Your task to perform on an android device: clear all cookies in the chrome app Image 0: 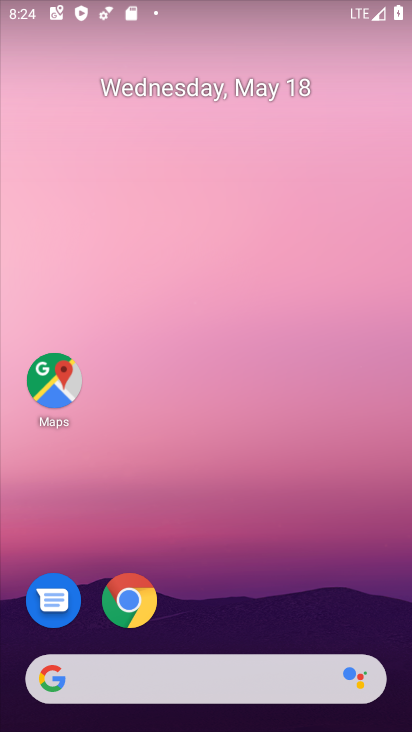
Step 0: click (126, 600)
Your task to perform on an android device: clear all cookies in the chrome app Image 1: 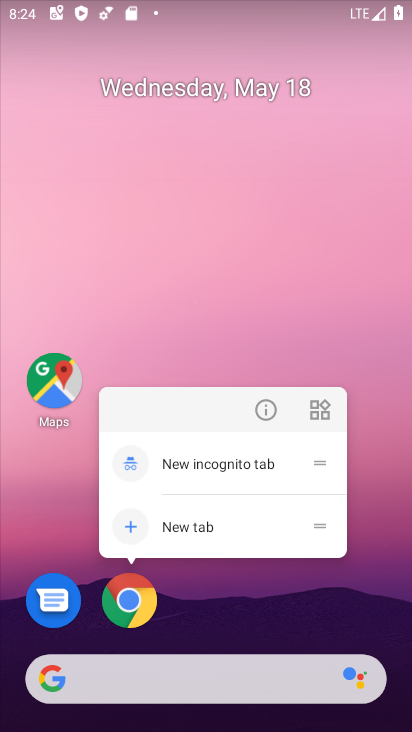
Step 1: click (138, 603)
Your task to perform on an android device: clear all cookies in the chrome app Image 2: 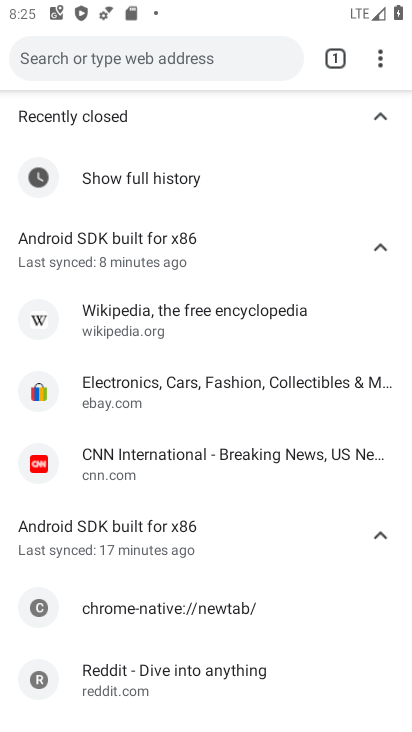
Step 2: drag from (260, 216) to (186, 694)
Your task to perform on an android device: clear all cookies in the chrome app Image 3: 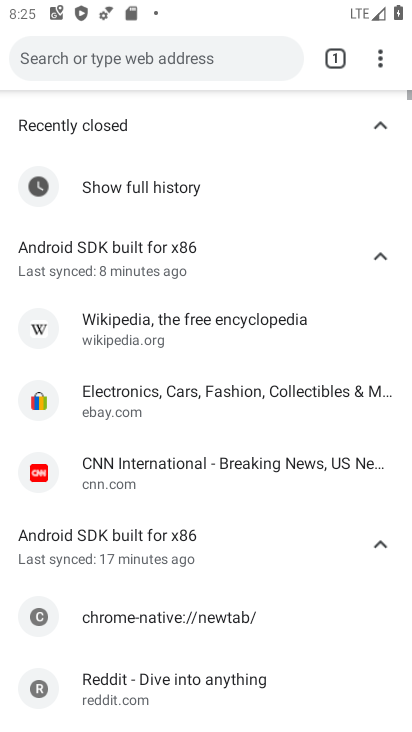
Step 3: click (381, 49)
Your task to perform on an android device: clear all cookies in the chrome app Image 4: 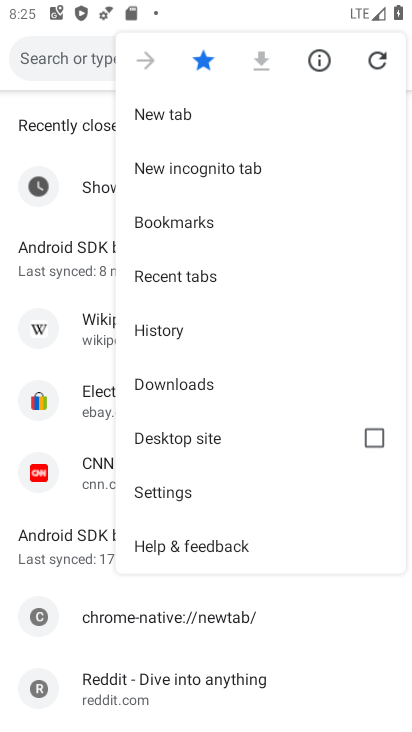
Step 4: click (187, 319)
Your task to perform on an android device: clear all cookies in the chrome app Image 5: 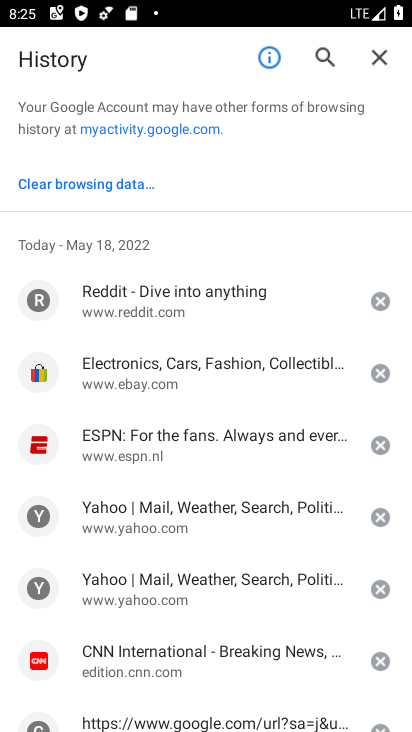
Step 5: click (94, 180)
Your task to perform on an android device: clear all cookies in the chrome app Image 6: 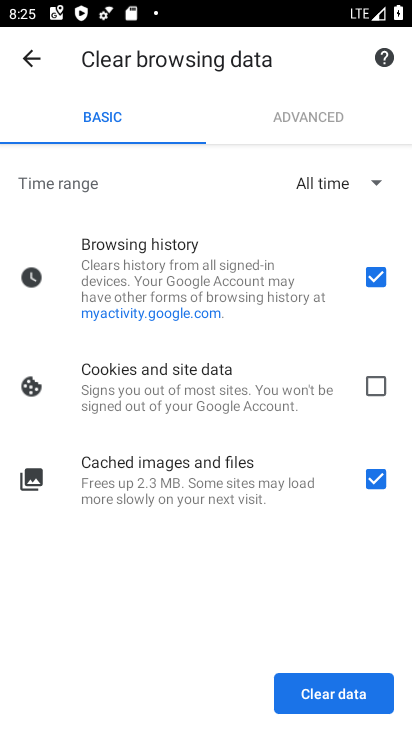
Step 6: click (360, 370)
Your task to perform on an android device: clear all cookies in the chrome app Image 7: 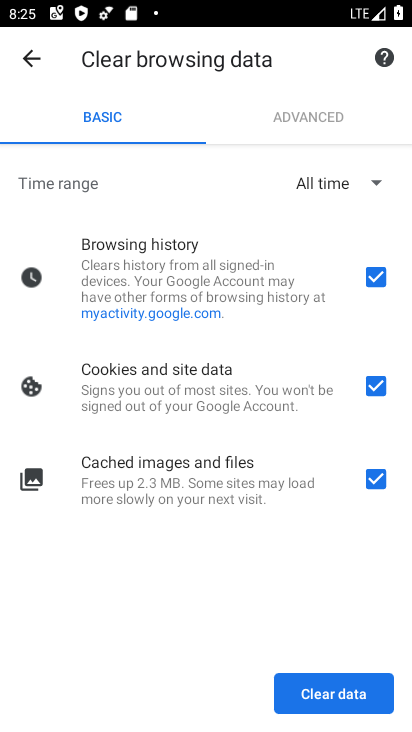
Step 7: click (380, 278)
Your task to perform on an android device: clear all cookies in the chrome app Image 8: 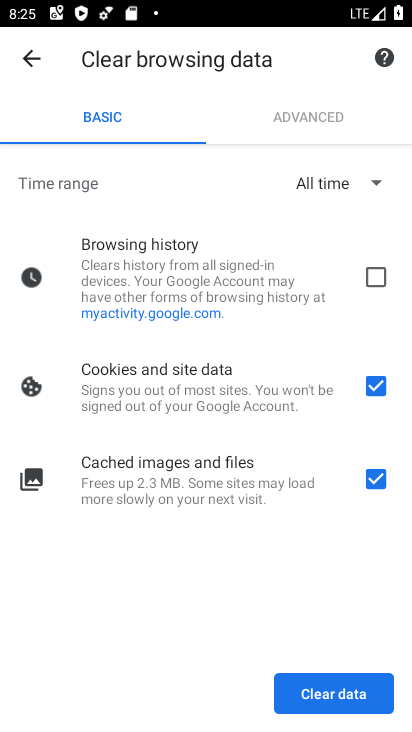
Step 8: click (374, 484)
Your task to perform on an android device: clear all cookies in the chrome app Image 9: 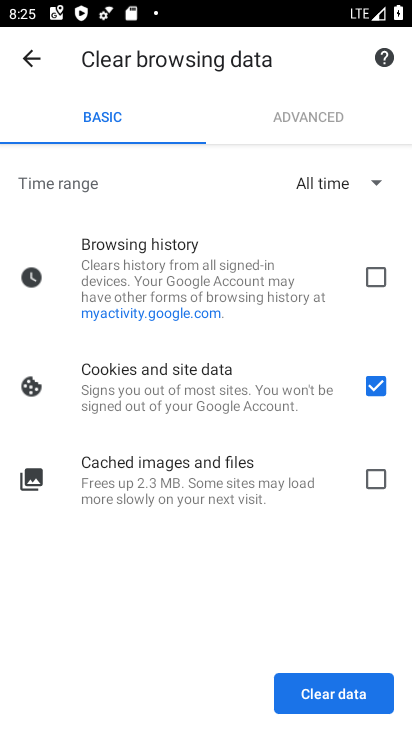
Step 9: click (331, 690)
Your task to perform on an android device: clear all cookies in the chrome app Image 10: 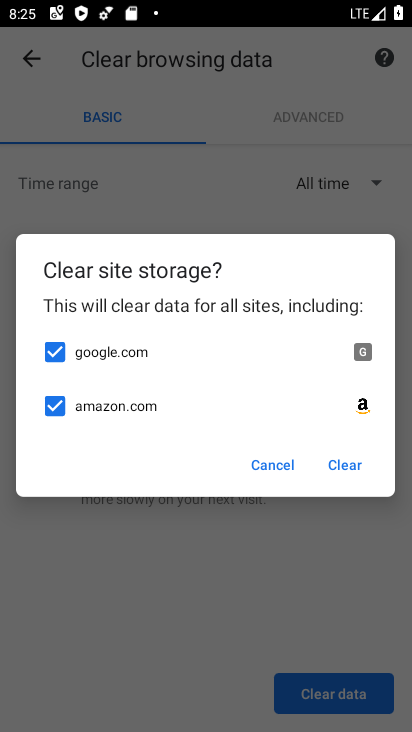
Step 10: click (346, 455)
Your task to perform on an android device: clear all cookies in the chrome app Image 11: 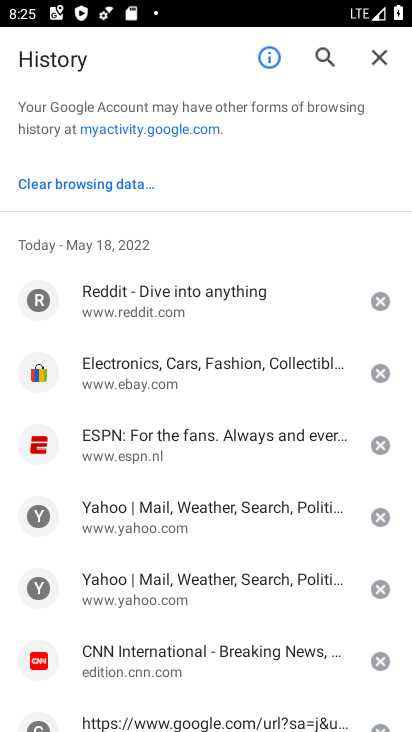
Step 11: task complete